Your task to perform on an android device: Go to eBay Image 0: 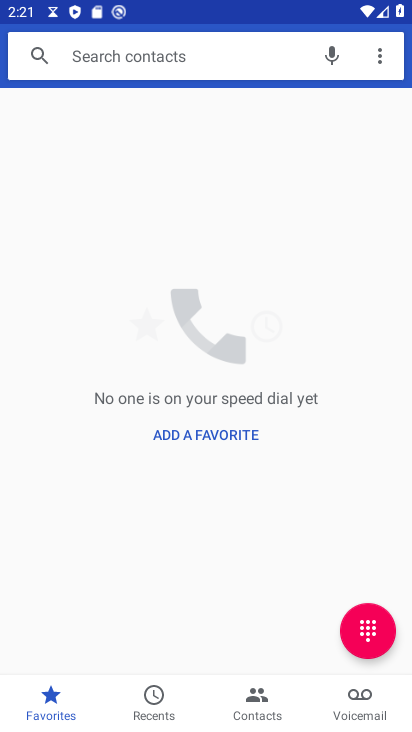
Step 0: press back button
Your task to perform on an android device: Go to eBay Image 1: 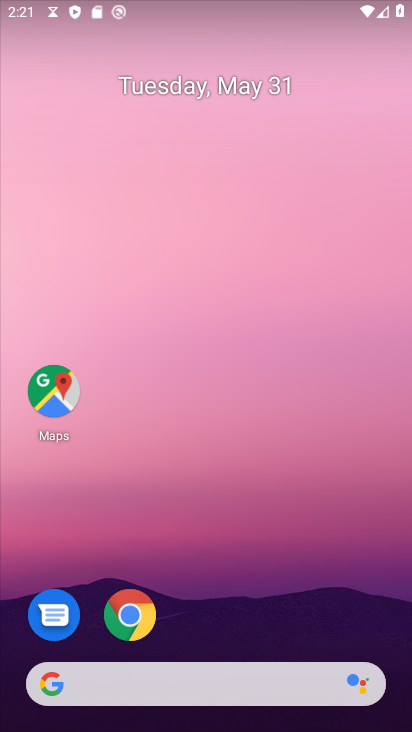
Step 1: drag from (297, 597) to (285, 14)
Your task to perform on an android device: Go to eBay Image 2: 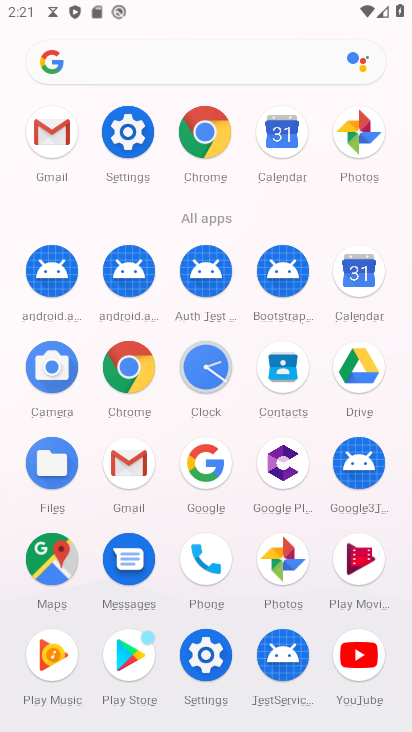
Step 2: click (201, 130)
Your task to perform on an android device: Go to eBay Image 3: 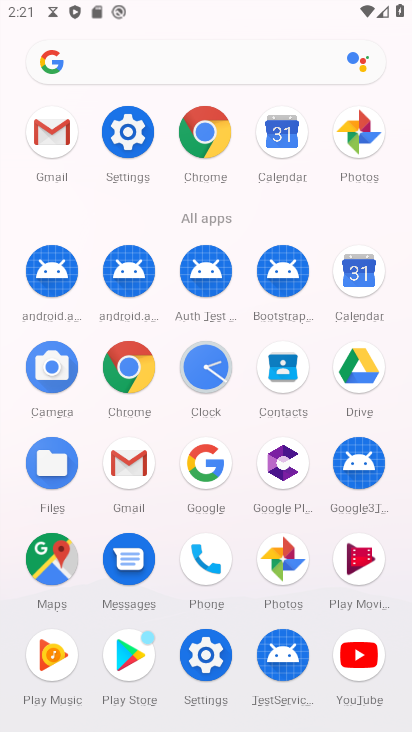
Step 3: click (201, 130)
Your task to perform on an android device: Go to eBay Image 4: 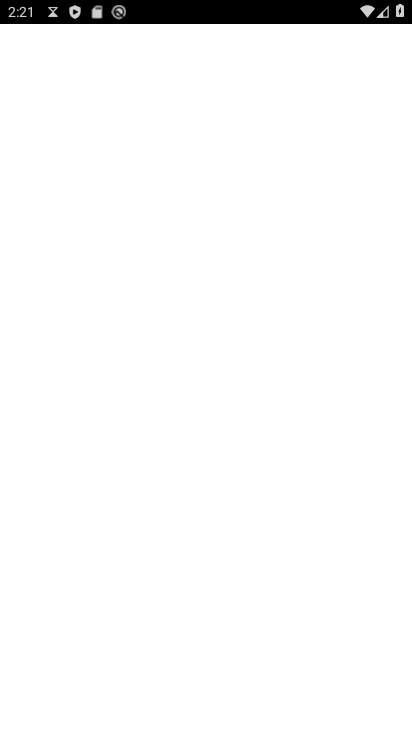
Step 4: click (201, 130)
Your task to perform on an android device: Go to eBay Image 5: 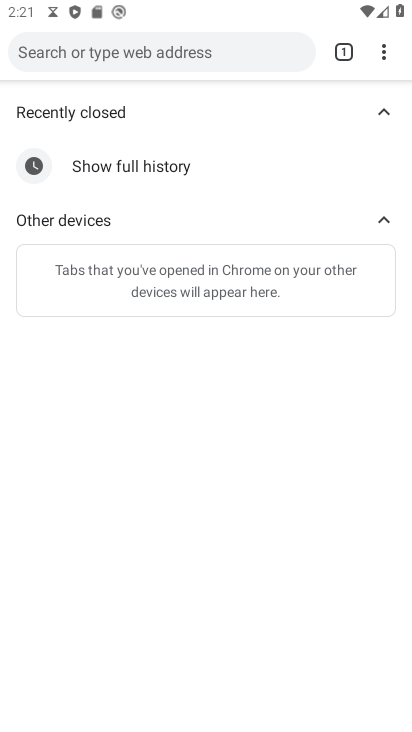
Step 5: click (379, 47)
Your task to perform on an android device: Go to eBay Image 6: 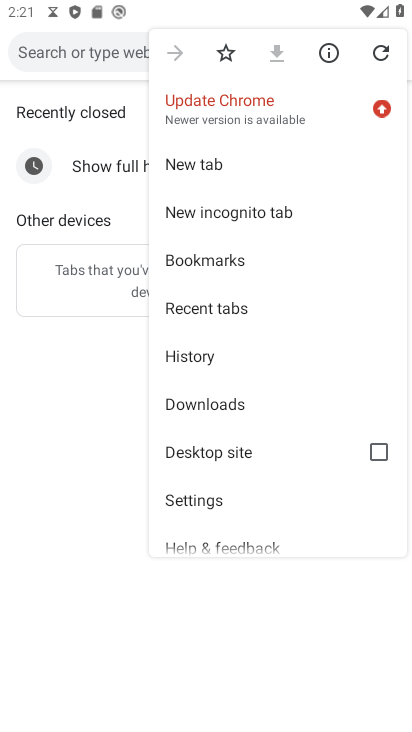
Step 6: click (202, 173)
Your task to perform on an android device: Go to eBay Image 7: 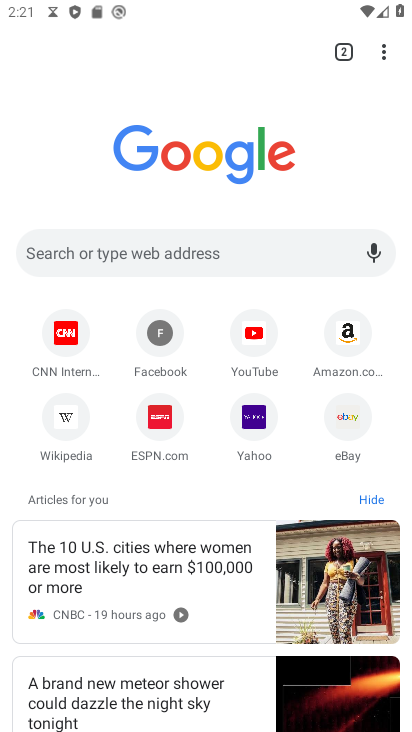
Step 7: click (349, 412)
Your task to perform on an android device: Go to eBay Image 8: 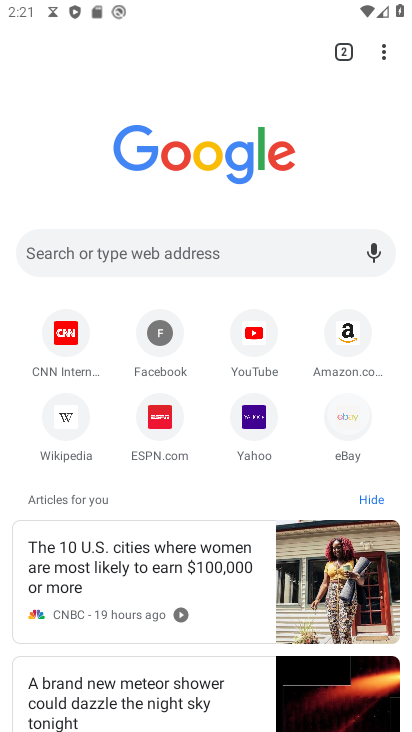
Step 8: click (349, 412)
Your task to perform on an android device: Go to eBay Image 9: 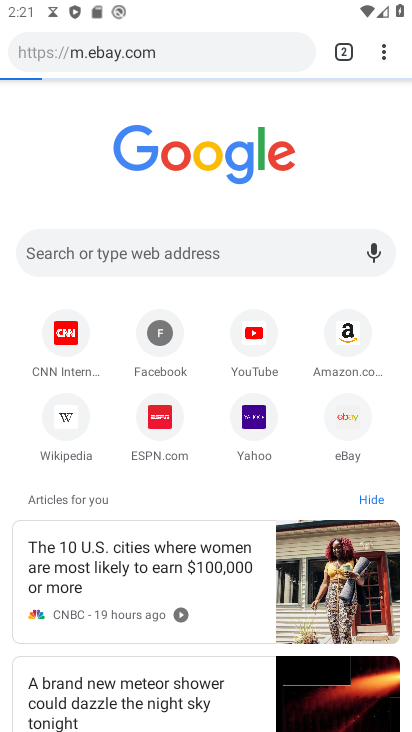
Step 9: click (349, 412)
Your task to perform on an android device: Go to eBay Image 10: 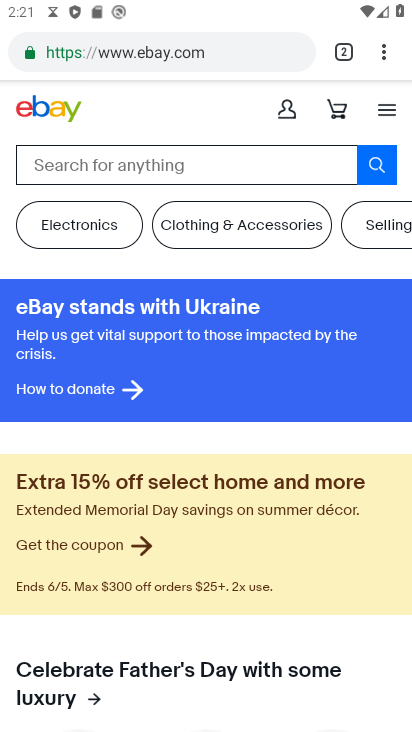
Step 10: task complete